Your task to perform on an android device: turn on showing notifications on the lock screen Image 0: 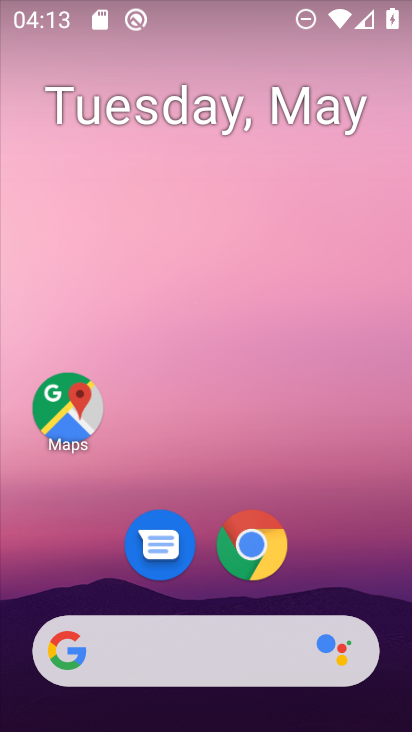
Step 0: drag from (382, 601) to (269, 56)
Your task to perform on an android device: turn on showing notifications on the lock screen Image 1: 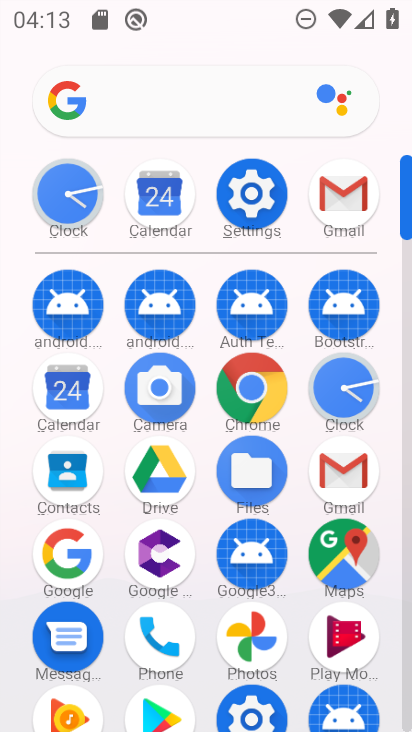
Step 1: click (406, 709)
Your task to perform on an android device: turn on showing notifications on the lock screen Image 2: 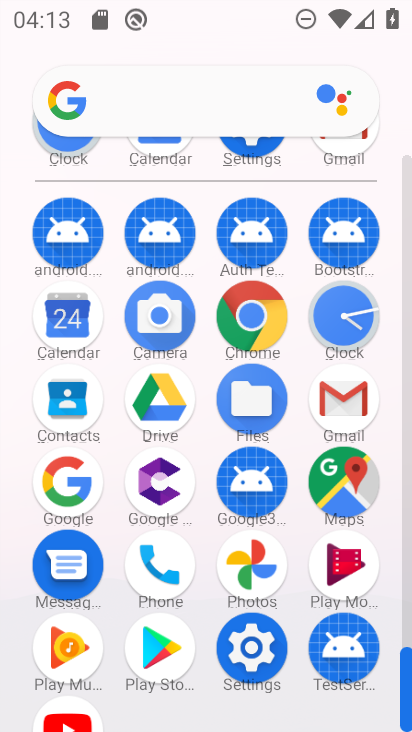
Step 2: click (249, 648)
Your task to perform on an android device: turn on showing notifications on the lock screen Image 3: 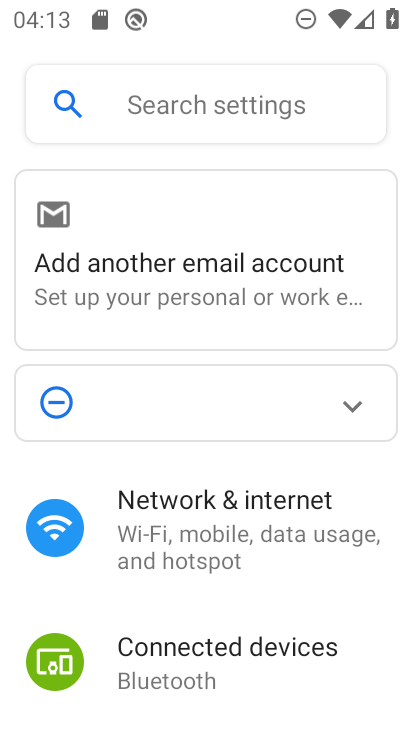
Step 3: drag from (266, 700) to (275, 177)
Your task to perform on an android device: turn on showing notifications on the lock screen Image 4: 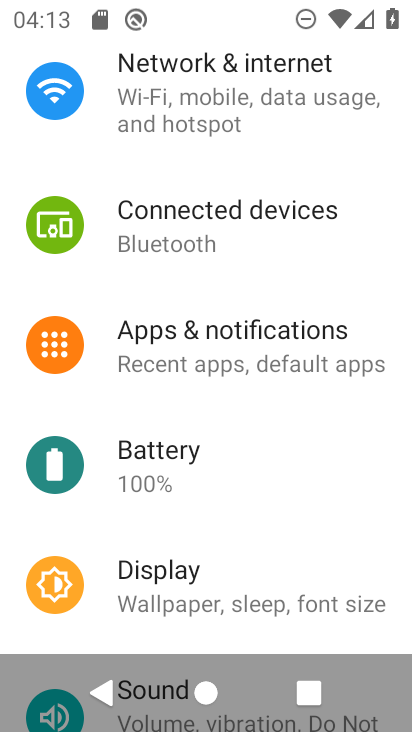
Step 4: click (182, 346)
Your task to perform on an android device: turn on showing notifications on the lock screen Image 5: 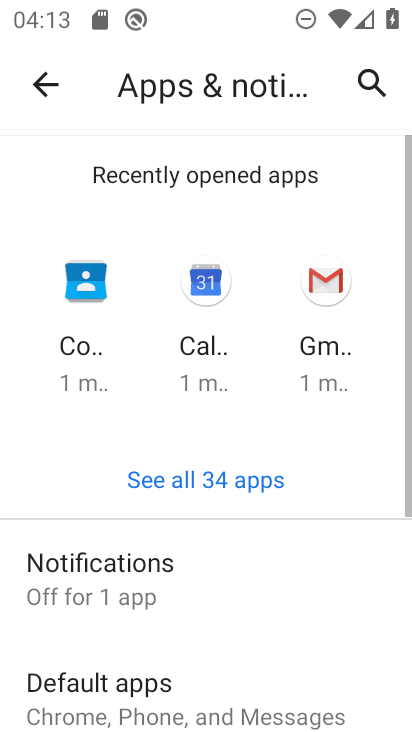
Step 5: drag from (293, 629) to (292, 192)
Your task to perform on an android device: turn on showing notifications on the lock screen Image 6: 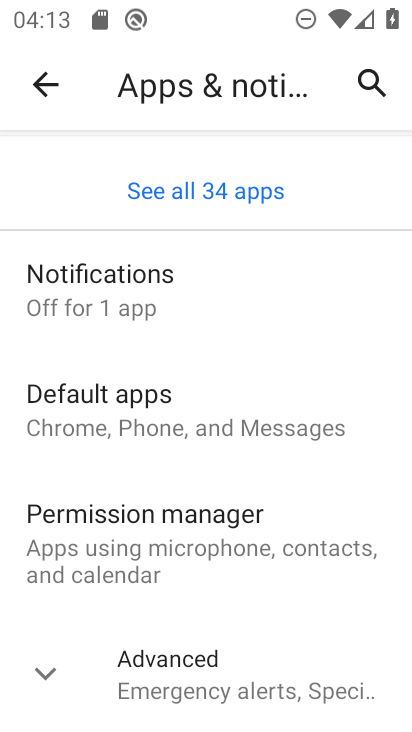
Step 6: click (90, 270)
Your task to perform on an android device: turn on showing notifications on the lock screen Image 7: 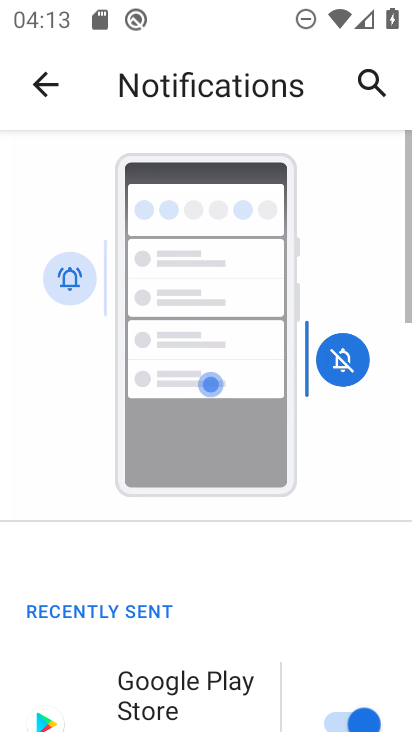
Step 7: drag from (292, 683) to (252, 125)
Your task to perform on an android device: turn on showing notifications on the lock screen Image 8: 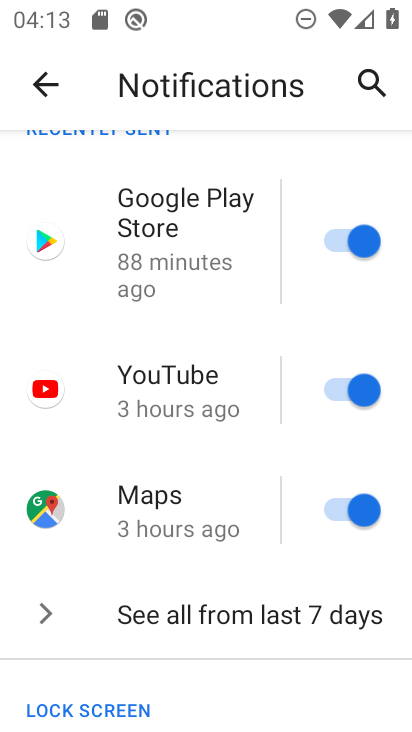
Step 8: drag from (267, 549) to (263, 93)
Your task to perform on an android device: turn on showing notifications on the lock screen Image 9: 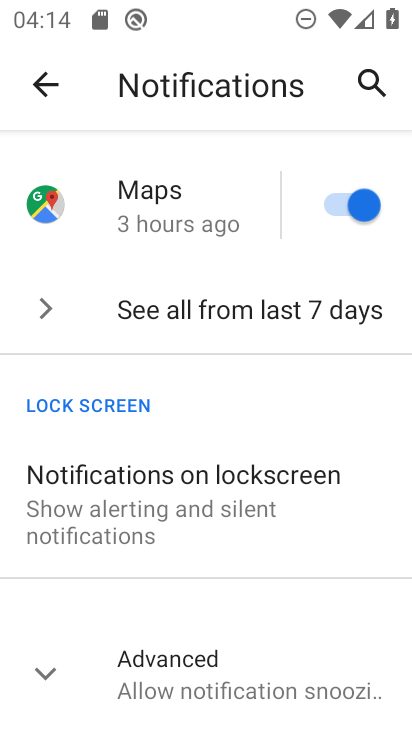
Step 9: click (139, 503)
Your task to perform on an android device: turn on showing notifications on the lock screen Image 10: 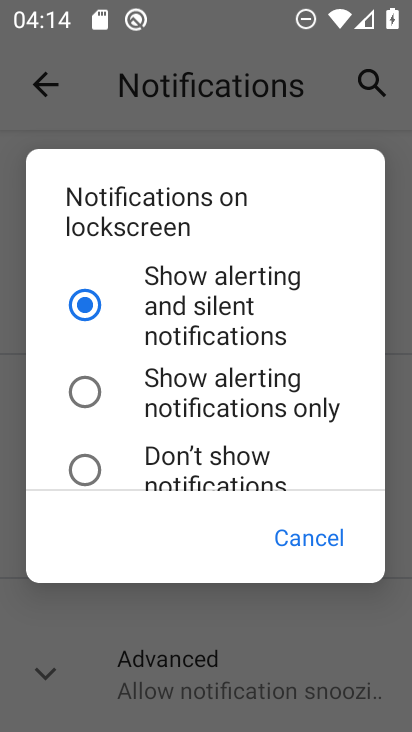
Step 10: task complete